Your task to perform on an android device: empty trash in google photos Image 0: 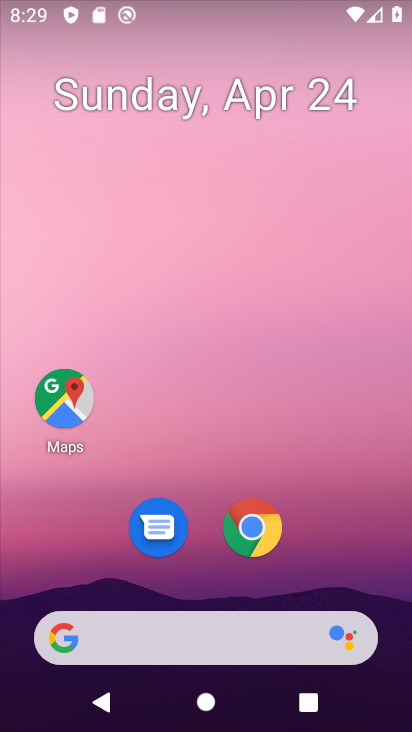
Step 0: drag from (277, 503) to (341, 23)
Your task to perform on an android device: empty trash in google photos Image 1: 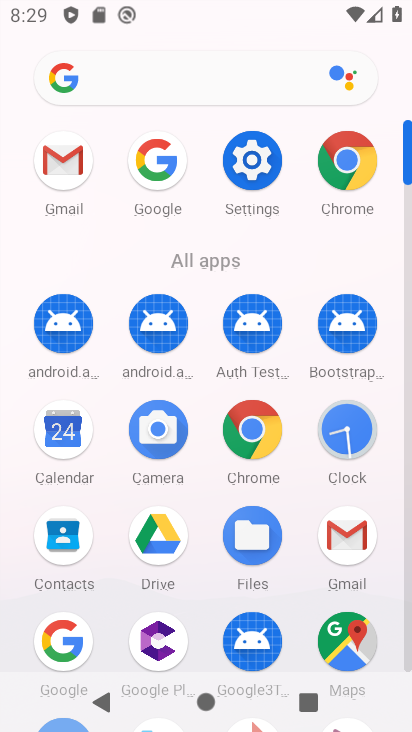
Step 1: drag from (211, 596) to (235, 282)
Your task to perform on an android device: empty trash in google photos Image 2: 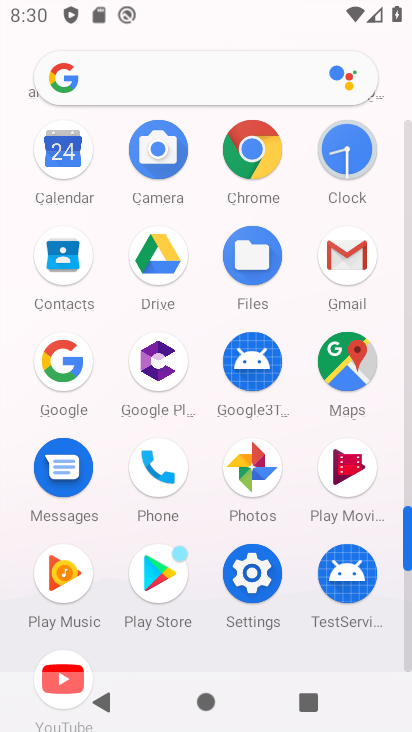
Step 2: click (259, 463)
Your task to perform on an android device: empty trash in google photos Image 3: 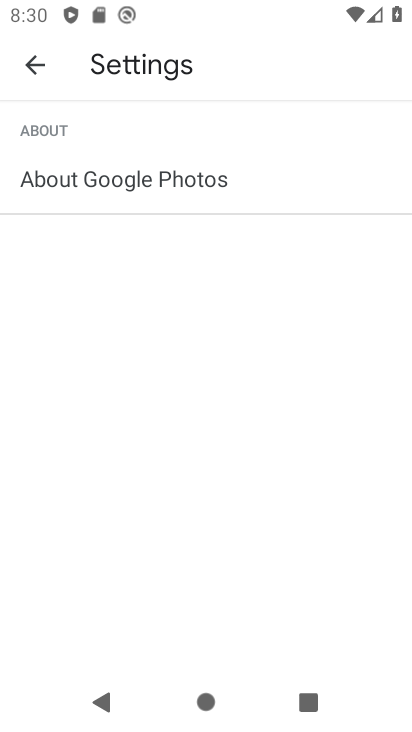
Step 3: click (40, 66)
Your task to perform on an android device: empty trash in google photos Image 4: 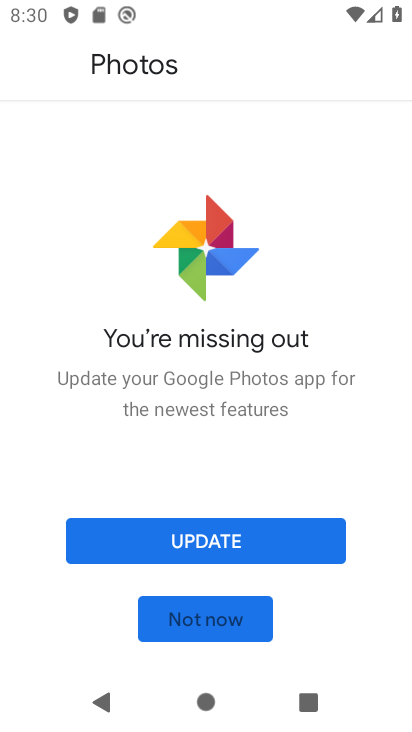
Step 4: click (240, 535)
Your task to perform on an android device: empty trash in google photos Image 5: 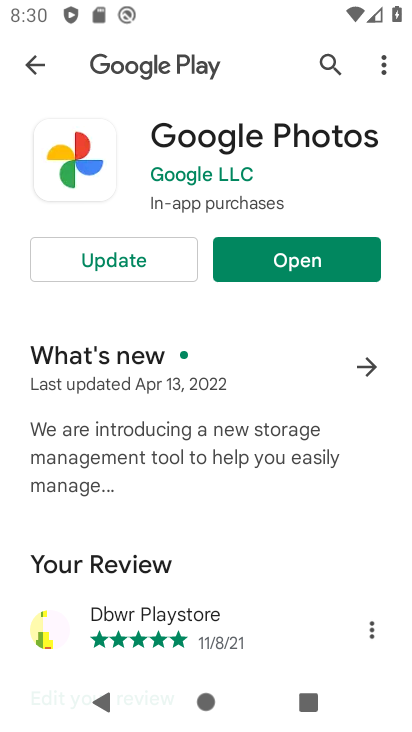
Step 5: click (134, 265)
Your task to perform on an android device: empty trash in google photos Image 6: 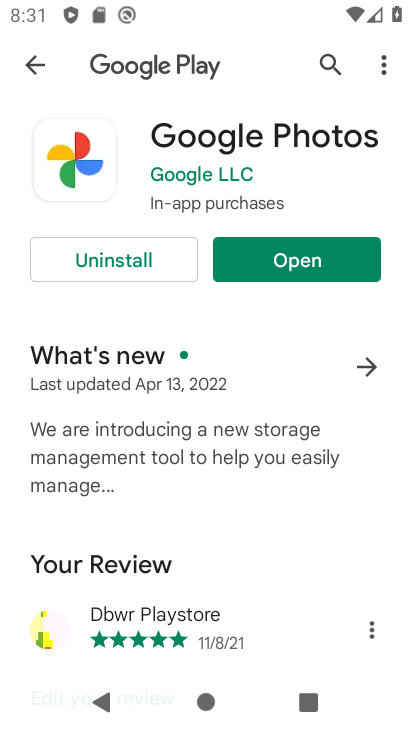
Step 6: click (303, 269)
Your task to perform on an android device: empty trash in google photos Image 7: 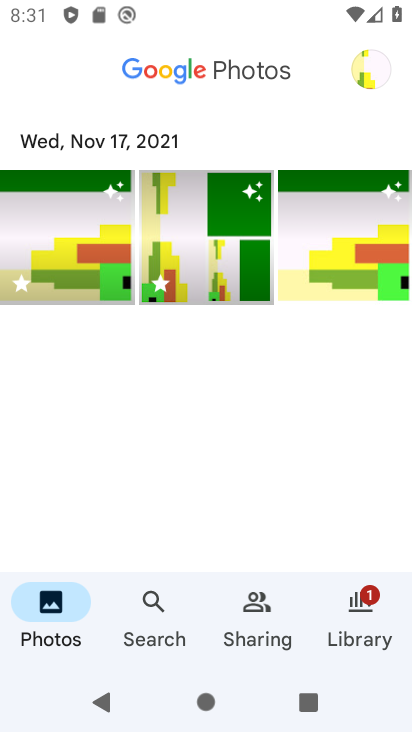
Step 7: click (366, 617)
Your task to perform on an android device: empty trash in google photos Image 8: 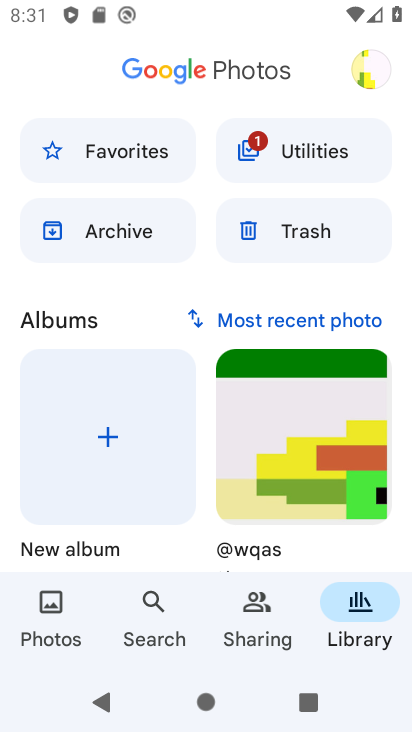
Step 8: click (332, 229)
Your task to perform on an android device: empty trash in google photos Image 9: 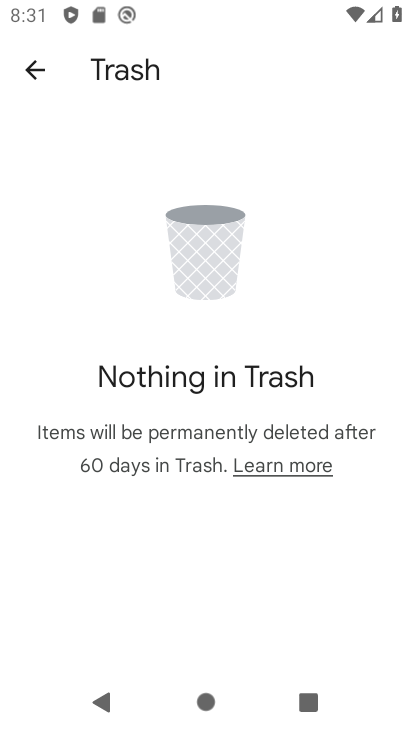
Step 9: task complete